Your task to perform on an android device: set the stopwatch Image 0: 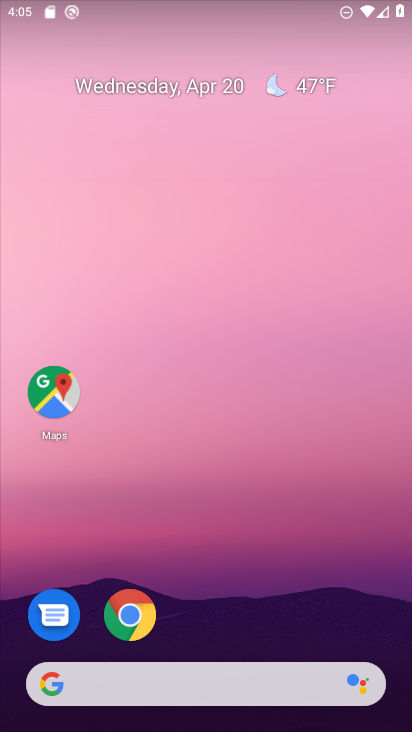
Step 0: click (183, 69)
Your task to perform on an android device: set the stopwatch Image 1: 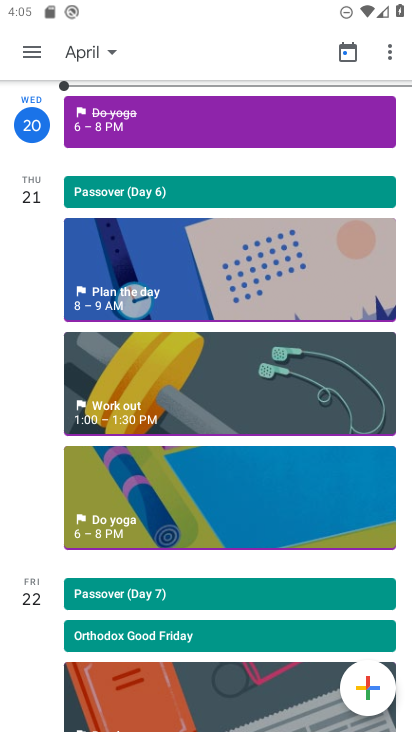
Step 1: press home button
Your task to perform on an android device: set the stopwatch Image 2: 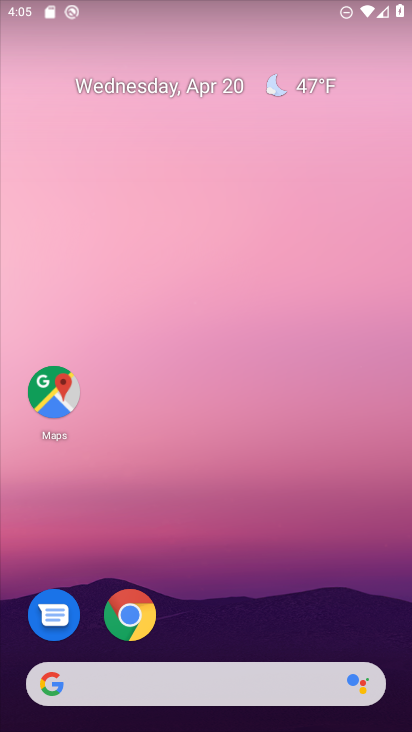
Step 2: drag from (245, 543) to (213, 70)
Your task to perform on an android device: set the stopwatch Image 3: 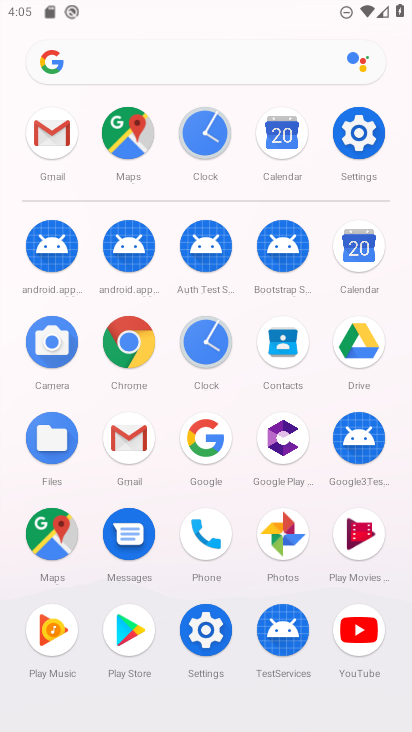
Step 3: click (206, 131)
Your task to perform on an android device: set the stopwatch Image 4: 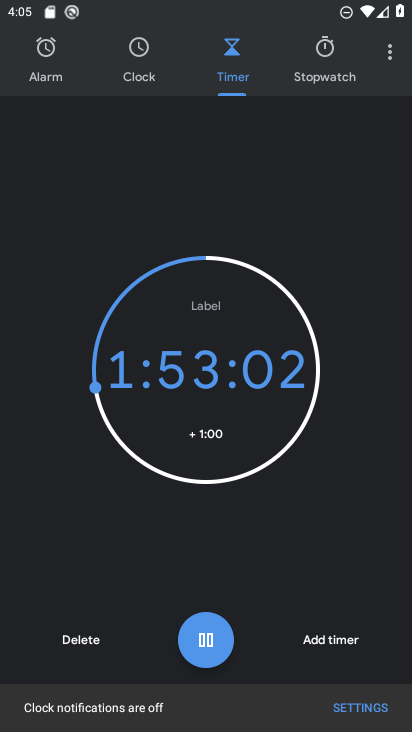
Step 4: click (324, 66)
Your task to perform on an android device: set the stopwatch Image 5: 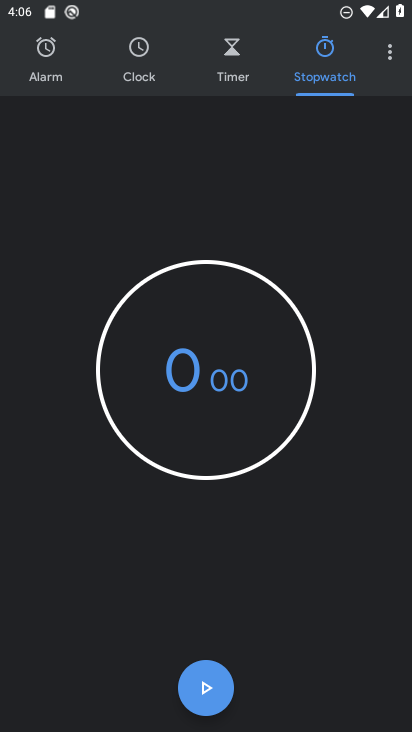
Step 5: click (209, 687)
Your task to perform on an android device: set the stopwatch Image 6: 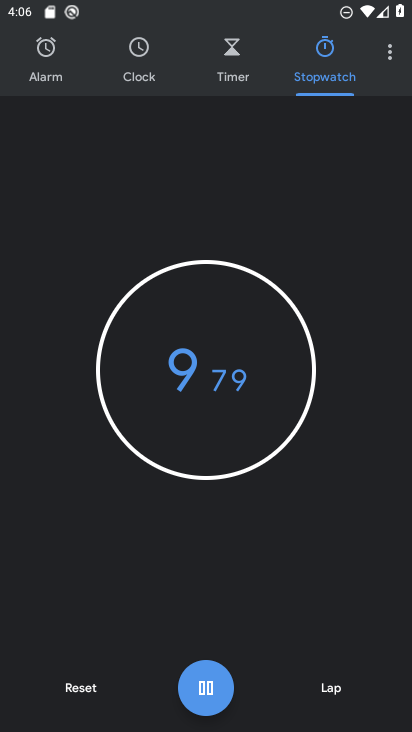
Step 6: task complete